Your task to perform on an android device: turn on translation in the chrome app Image 0: 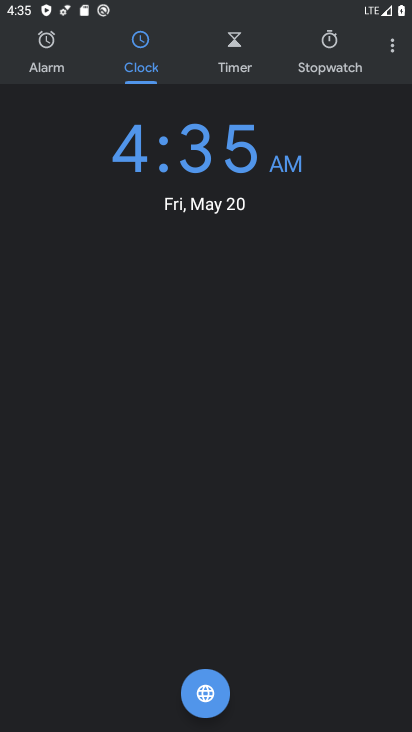
Step 0: press home button
Your task to perform on an android device: turn on translation in the chrome app Image 1: 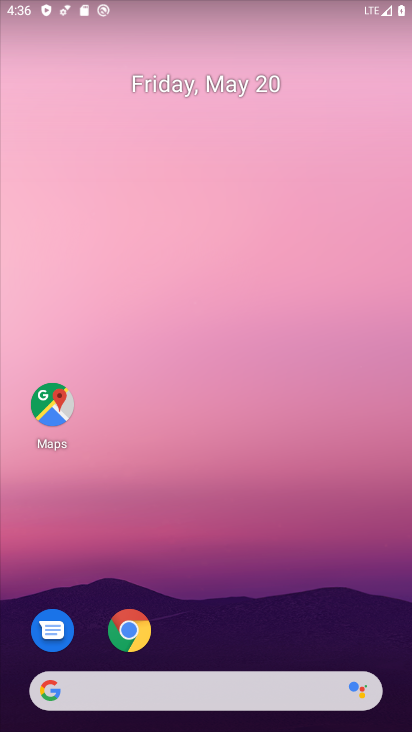
Step 1: click (127, 629)
Your task to perform on an android device: turn on translation in the chrome app Image 2: 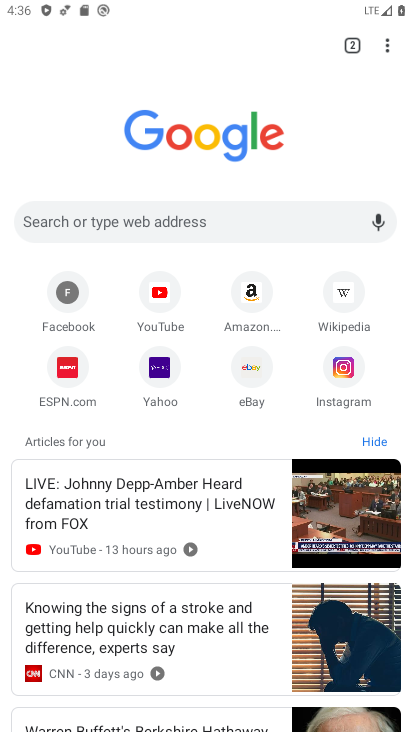
Step 2: click (382, 41)
Your task to perform on an android device: turn on translation in the chrome app Image 3: 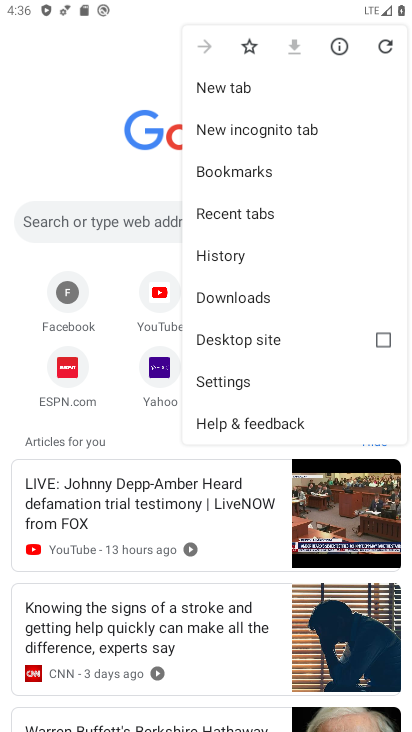
Step 3: click (228, 373)
Your task to perform on an android device: turn on translation in the chrome app Image 4: 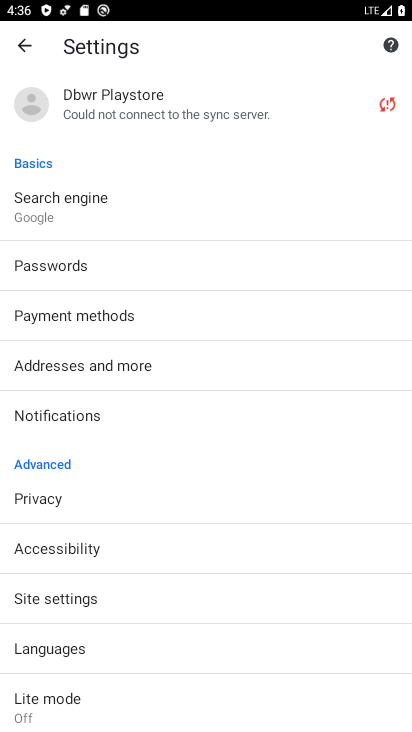
Step 4: click (140, 642)
Your task to perform on an android device: turn on translation in the chrome app Image 5: 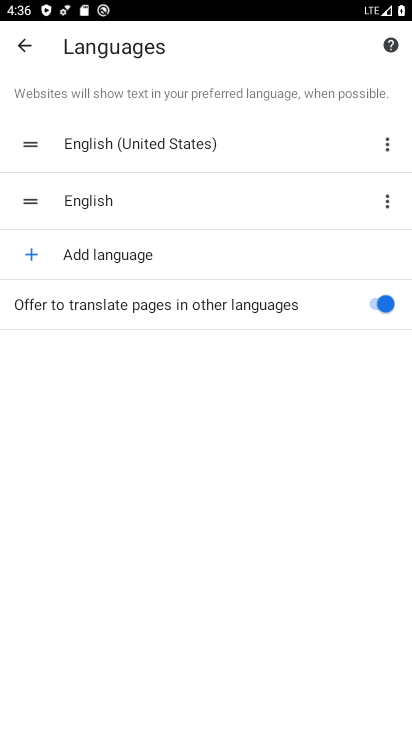
Step 5: task complete